Your task to perform on an android device: add a label to a message in the gmail app Image 0: 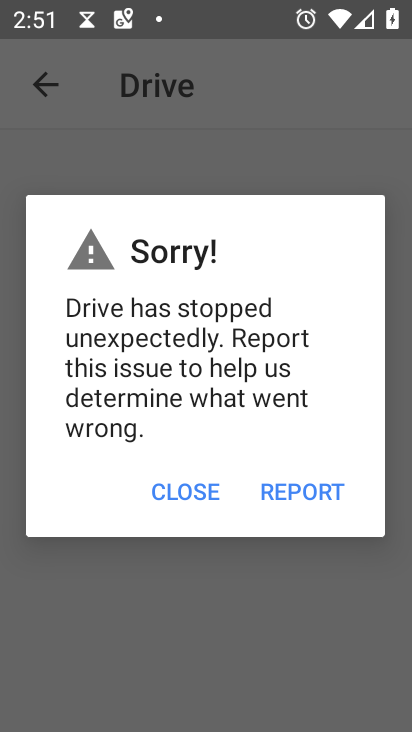
Step 0: press home button
Your task to perform on an android device: add a label to a message in the gmail app Image 1: 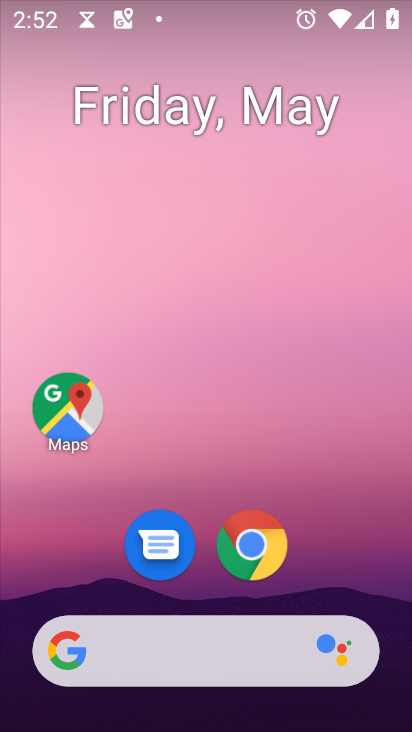
Step 1: drag from (325, 568) to (287, 132)
Your task to perform on an android device: add a label to a message in the gmail app Image 2: 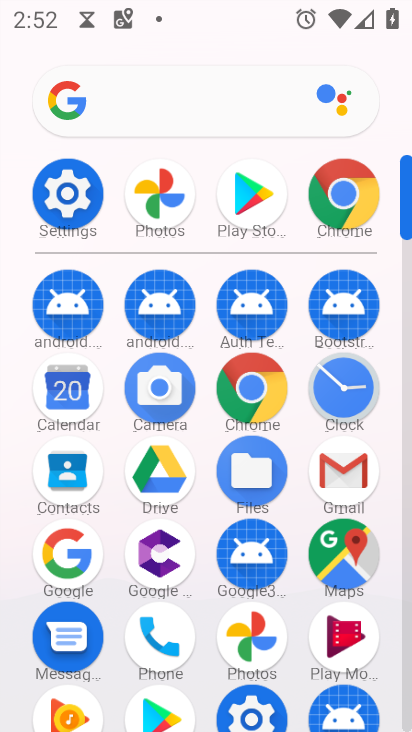
Step 2: click (350, 475)
Your task to perform on an android device: add a label to a message in the gmail app Image 3: 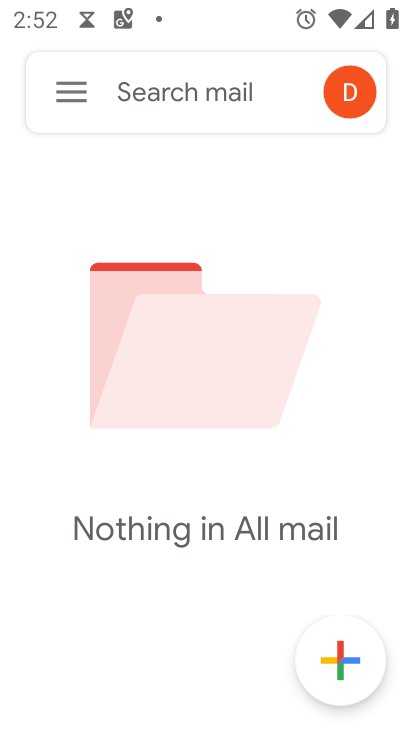
Step 3: click (70, 88)
Your task to perform on an android device: add a label to a message in the gmail app Image 4: 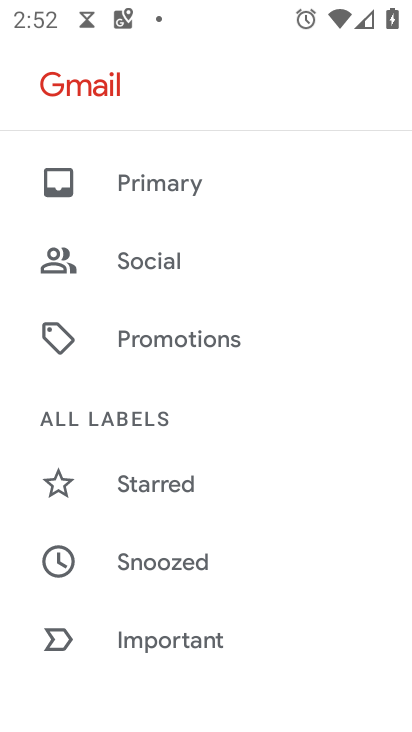
Step 4: drag from (234, 616) to (274, 143)
Your task to perform on an android device: add a label to a message in the gmail app Image 5: 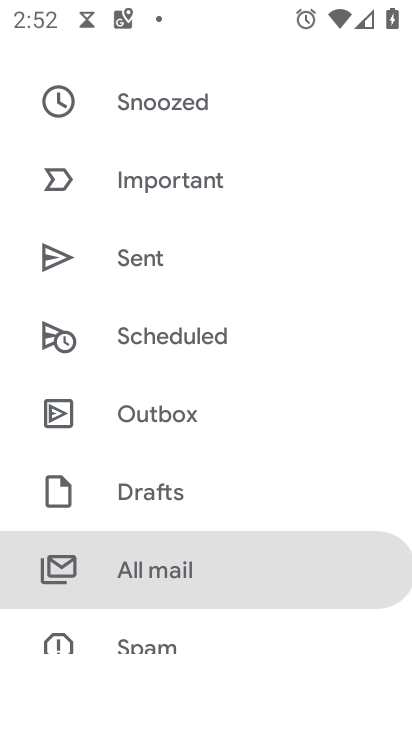
Step 5: drag from (275, 315) to (281, 638)
Your task to perform on an android device: add a label to a message in the gmail app Image 6: 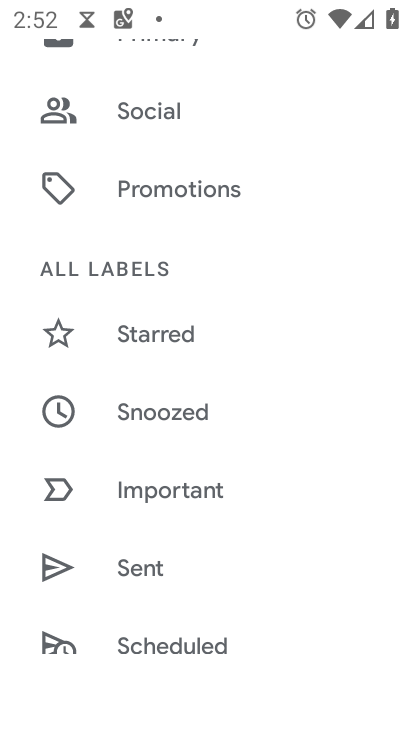
Step 6: drag from (294, 132) to (311, 428)
Your task to perform on an android device: add a label to a message in the gmail app Image 7: 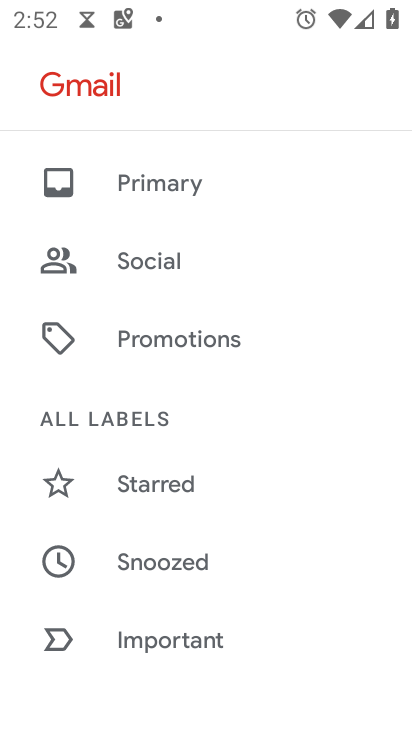
Step 7: click (228, 184)
Your task to perform on an android device: add a label to a message in the gmail app Image 8: 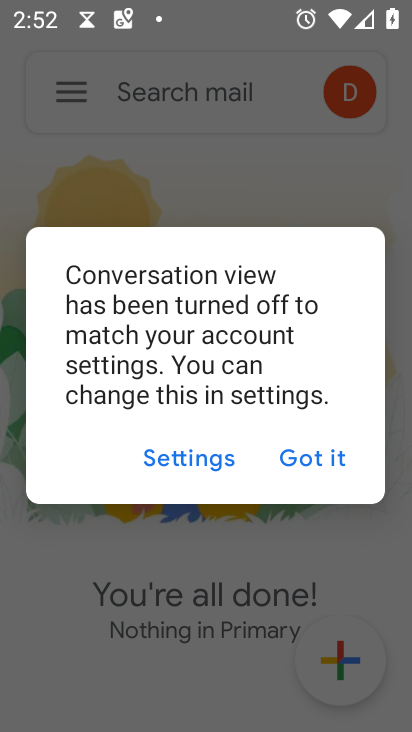
Step 8: click (325, 461)
Your task to perform on an android device: add a label to a message in the gmail app Image 9: 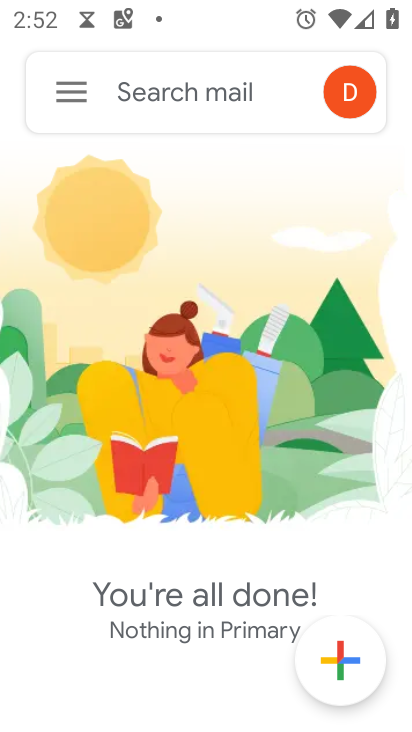
Step 9: task complete